Your task to perform on an android device: delete location history Image 0: 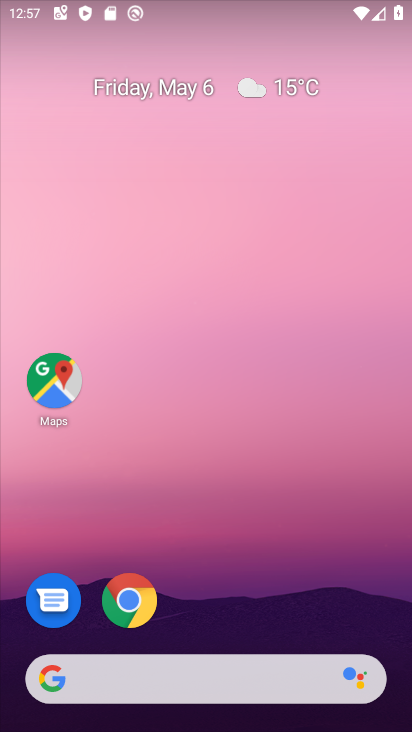
Step 0: drag from (351, 603) to (337, 59)
Your task to perform on an android device: delete location history Image 1: 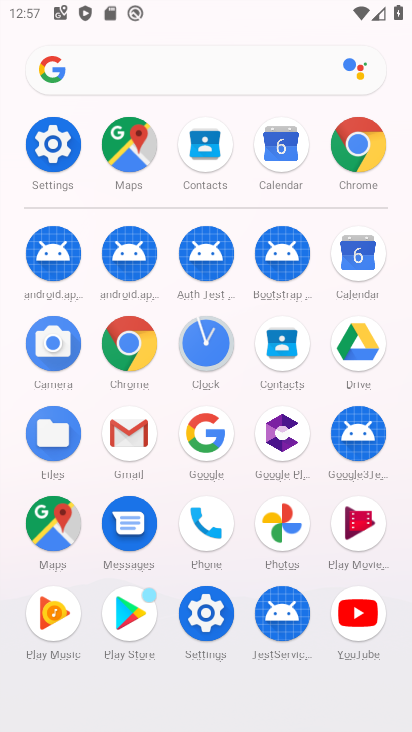
Step 1: click (216, 597)
Your task to perform on an android device: delete location history Image 2: 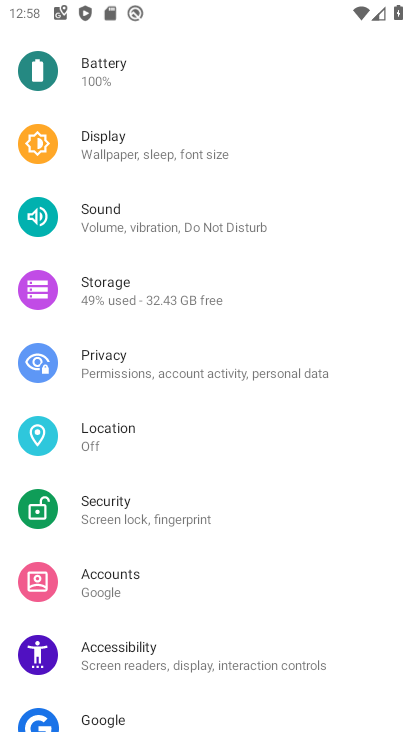
Step 2: click (174, 444)
Your task to perform on an android device: delete location history Image 3: 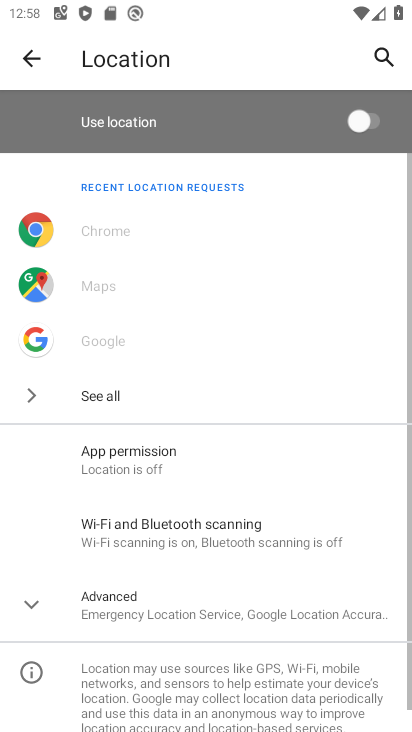
Step 3: click (141, 594)
Your task to perform on an android device: delete location history Image 4: 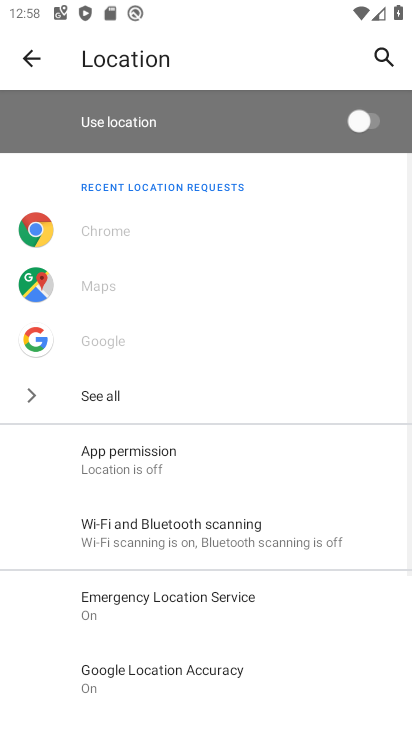
Step 4: drag from (159, 681) to (252, 357)
Your task to perform on an android device: delete location history Image 5: 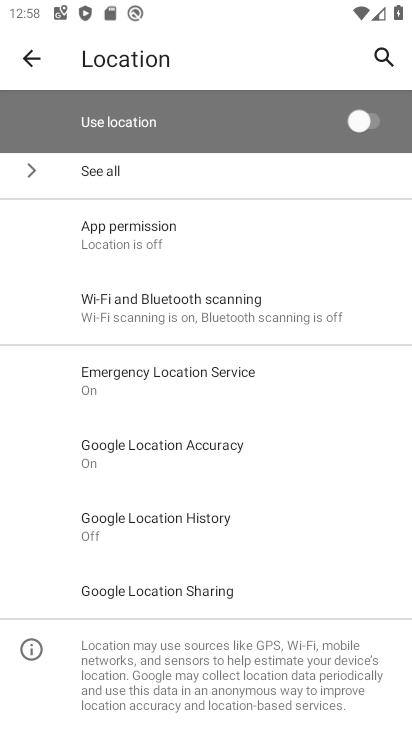
Step 5: click (205, 518)
Your task to perform on an android device: delete location history Image 6: 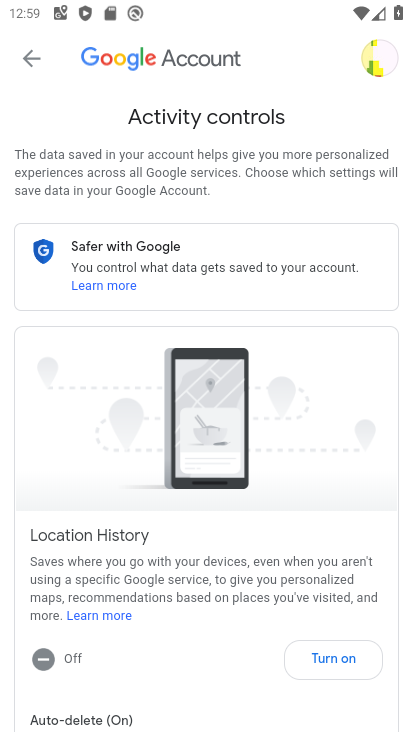
Step 6: drag from (331, 639) to (386, 264)
Your task to perform on an android device: delete location history Image 7: 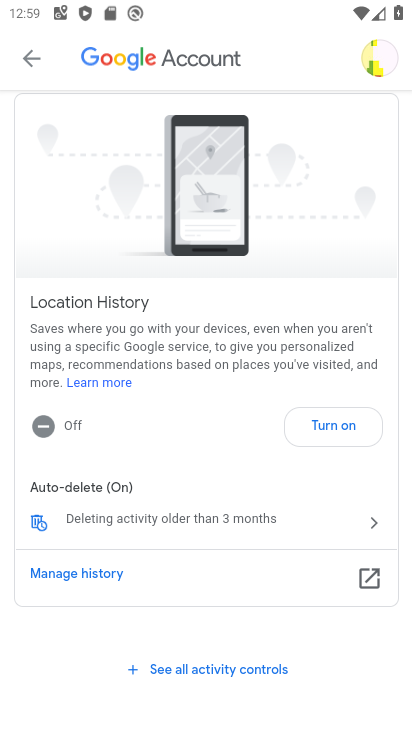
Step 7: click (128, 517)
Your task to perform on an android device: delete location history Image 8: 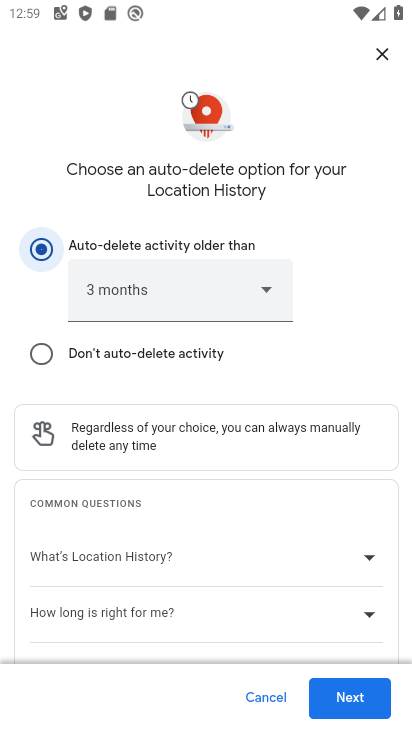
Step 8: click (344, 710)
Your task to perform on an android device: delete location history Image 9: 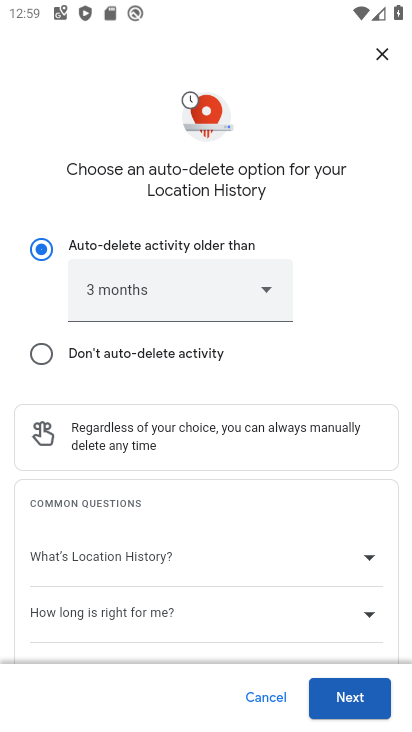
Step 9: click (346, 699)
Your task to perform on an android device: delete location history Image 10: 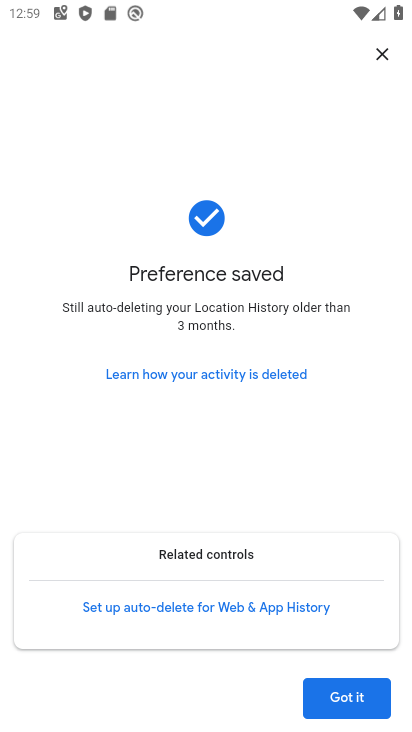
Step 10: task complete